Your task to perform on an android device: Open the map Image 0: 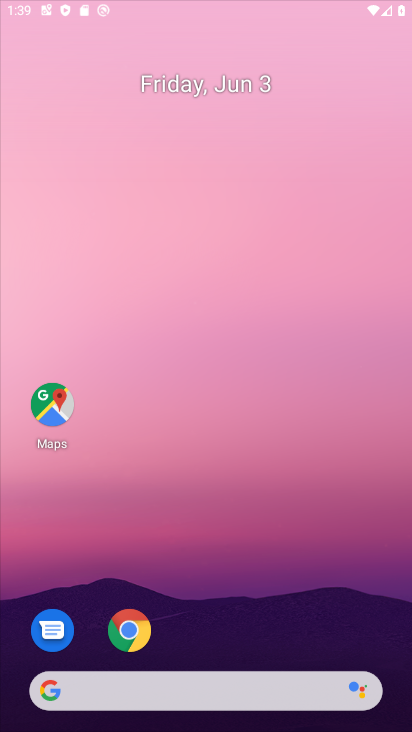
Step 0: click (253, 260)
Your task to perform on an android device: Open the map Image 1: 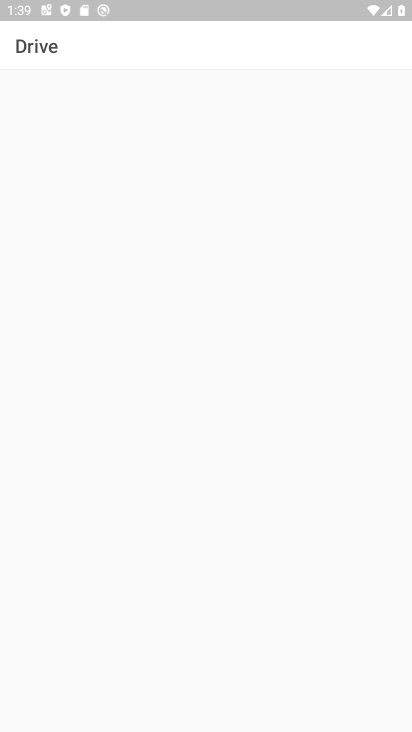
Step 1: press home button
Your task to perform on an android device: Open the map Image 2: 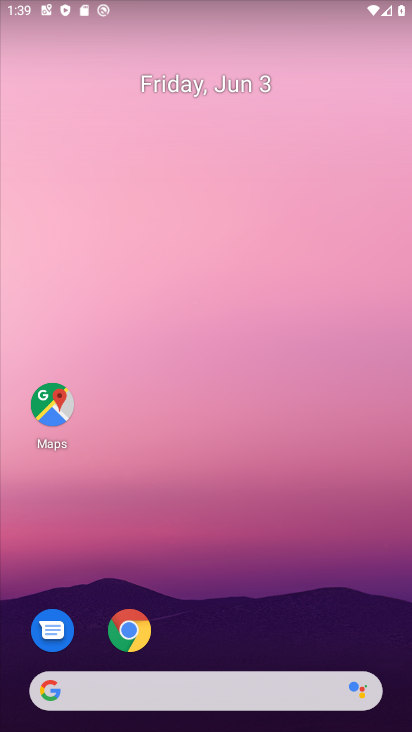
Step 2: drag from (230, 729) to (208, 196)
Your task to perform on an android device: Open the map Image 3: 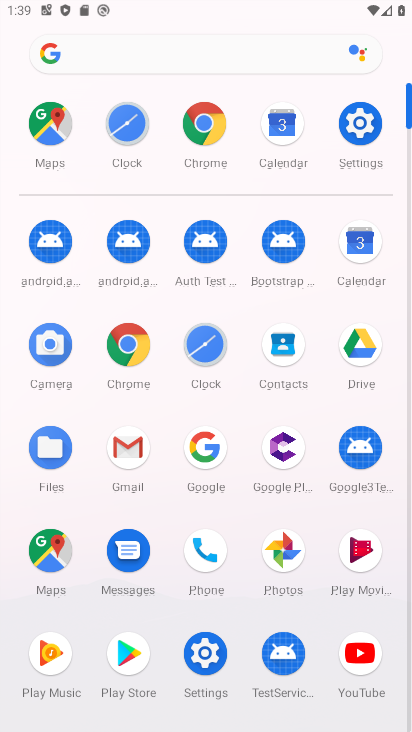
Step 3: click (35, 544)
Your task to perform on an android device: Open the map Image 4: 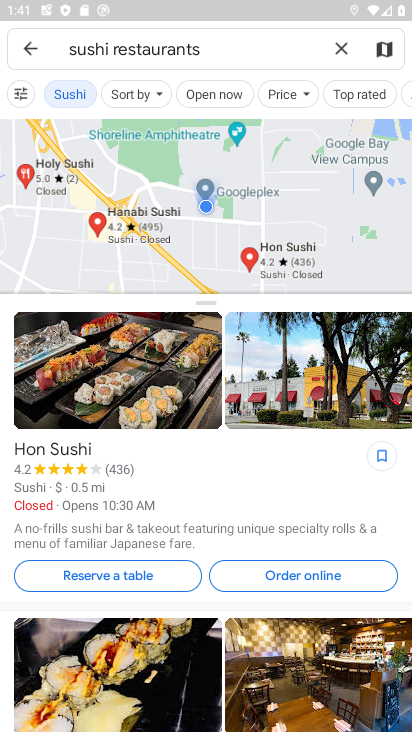
Step 4: task complete